Your task to perform on an android device: clear all cookies in the chrome app Image 0: 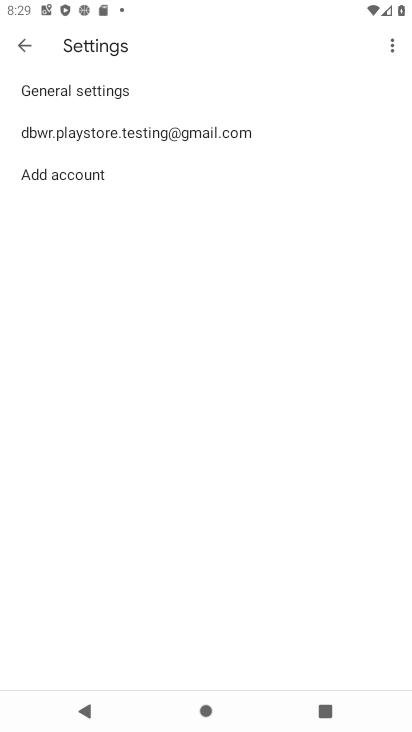
Step 0: press home button
Your task to perform on an android device: clear all cookies in the chrome app Image 1: 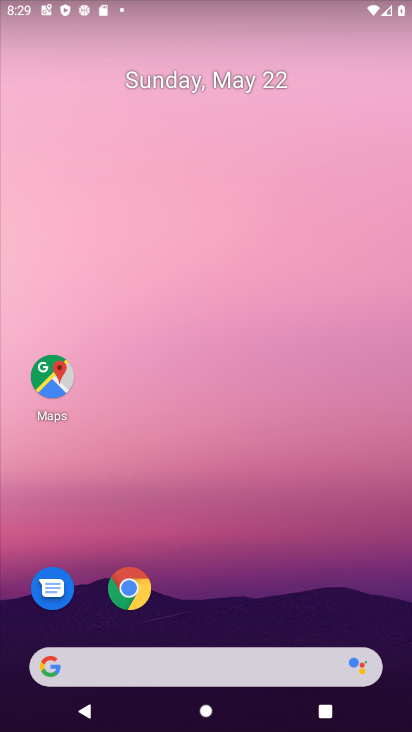
Step 1: click (124, 586)
Your task to perform on an android device: clear all cookies in the chrome app Image 2: 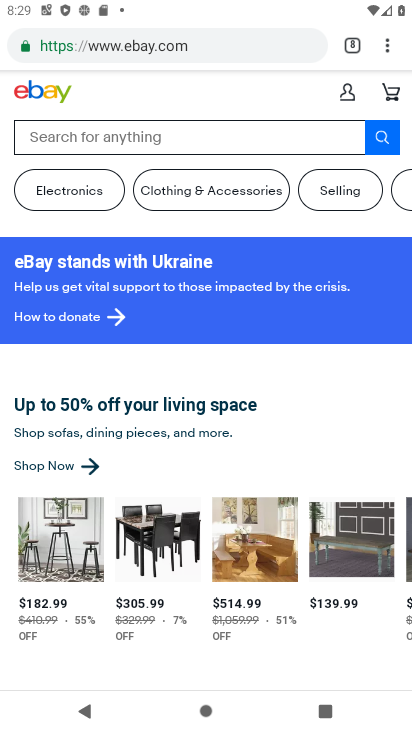
Step 2: click (381, 39)
Your task to perform on an android device: clear all cookies in the chrome app Image 3: 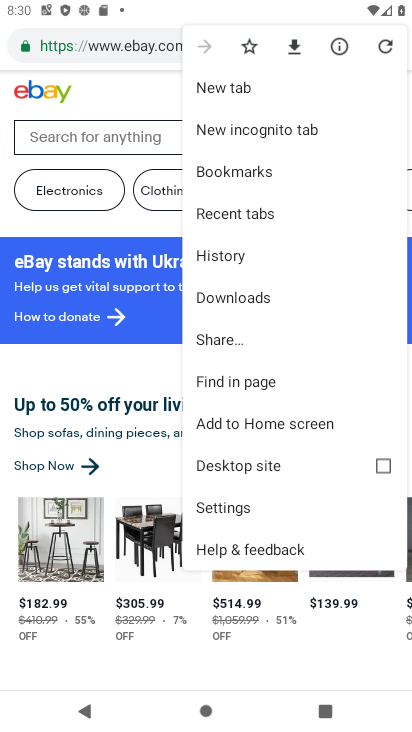
Step 3: click (209, 248)
Your task to perform on an android device: clear all cookies in the chrome app Image 4: 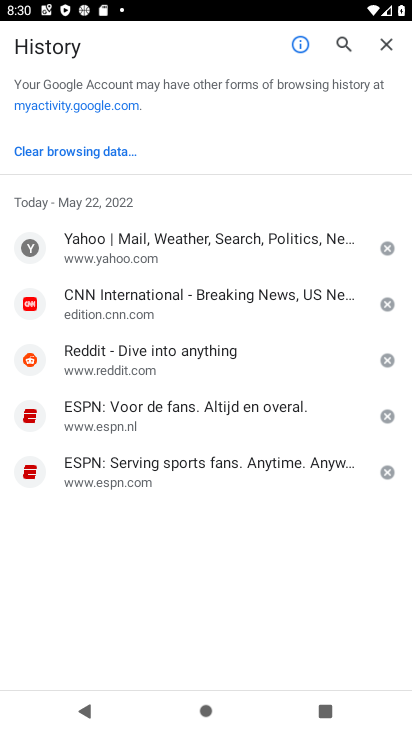
Step 4: click (45, 143)
Your task to perform on an android device: clear all cookies in the chrome app Image 5: 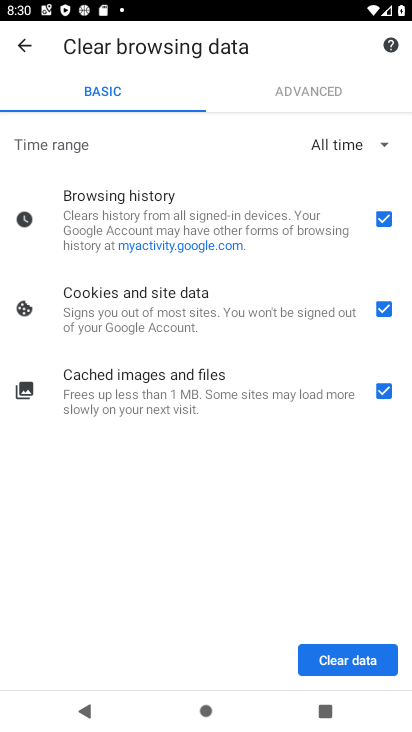
Step 5: click (379, 215)
Your task to perform on an android device: clear all cookies in the chrome app Image 6: 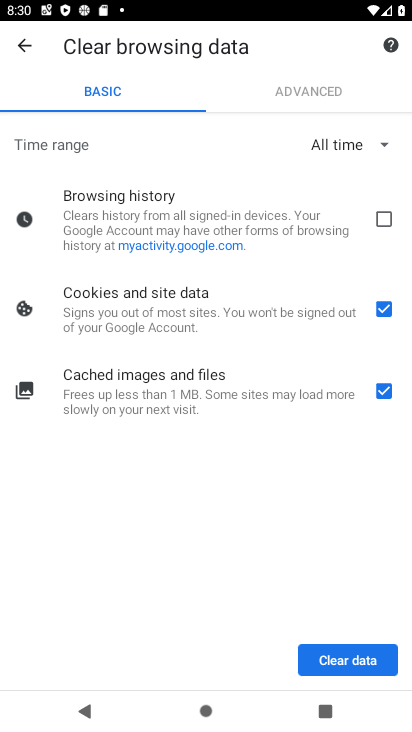
Step 6: click (376, 388)
Your task to perform on an android device: clear all cookies in the chrome app Image 7: 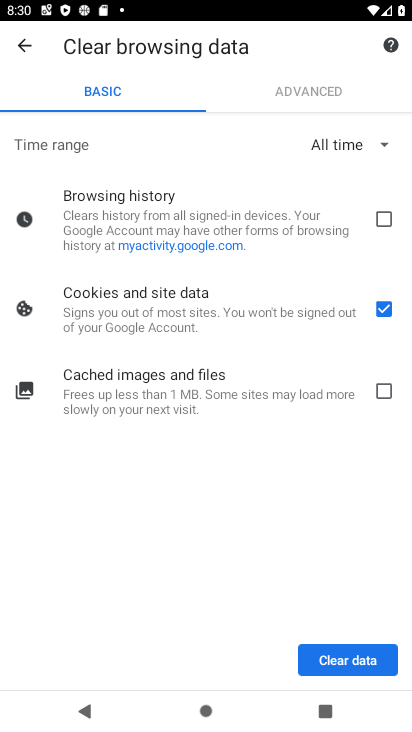
Step 7: click (332, 653)
Your task to perform on an android device: clear all cookies in the chrome app Image 8: 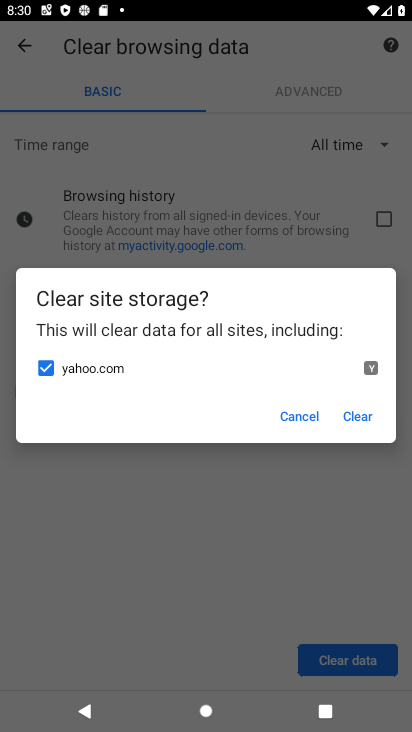
Step 8: click (355, 412)
Your task to perform on an android device: clear all cookies in the chrome app Image 9: 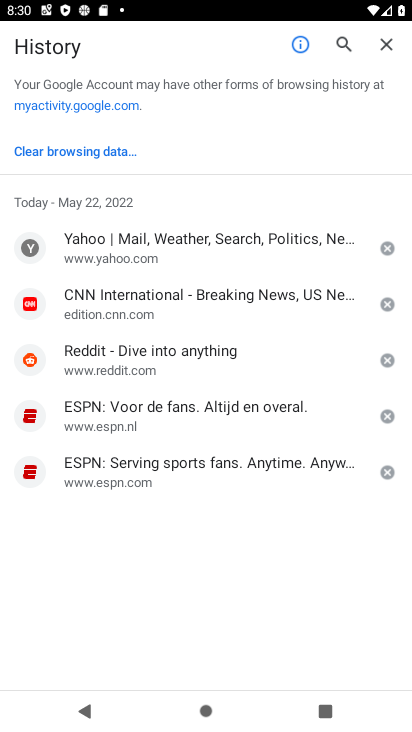
Step 9: task complete